Your task to perform on an android device: read, delete, or share a saved page in the chrome app Image 0: 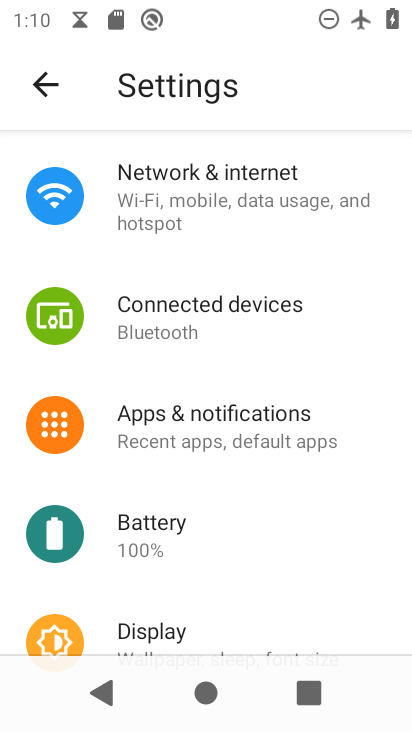
Step 0: press home button
Your task to perform on an android device: read, delete, or share a saved page in the chrome app Image 1: 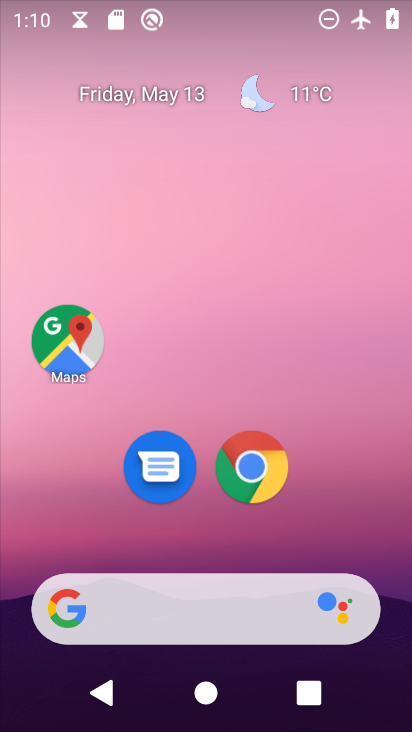
Step 1: click (253, 470)
Your task to perform on an android device: read, delete, or share a saved page in the chrome app Image 2: 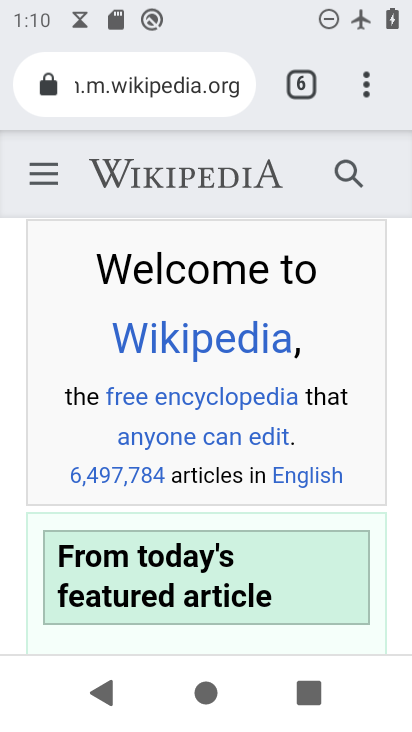
Step 2: click (361, 80)
Your task to perform on an android device: read, delete, or share a saved page in the chrome app Image 3: 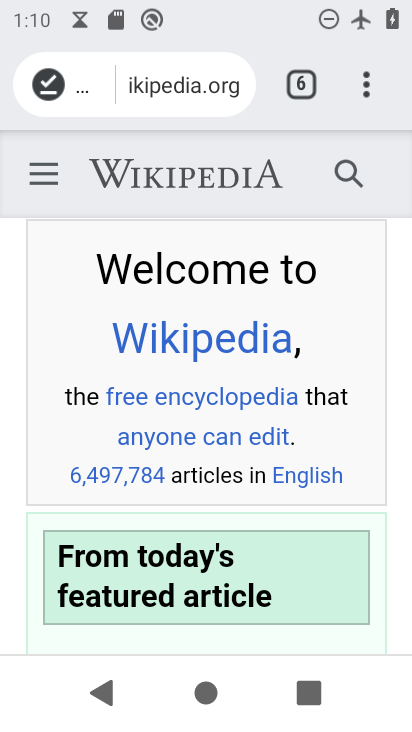
Step 3: click (348, 73)
Your task to perform on an android device: read, delete, or share a saved page in the chrome app Image 4: 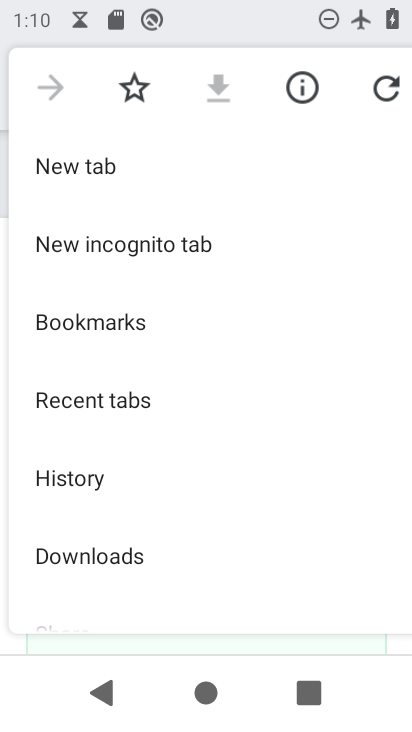
Step 4: click (119, 552)
Your task to perform on an android device: read, delete, or share a saved page in the chrome app Image 5: 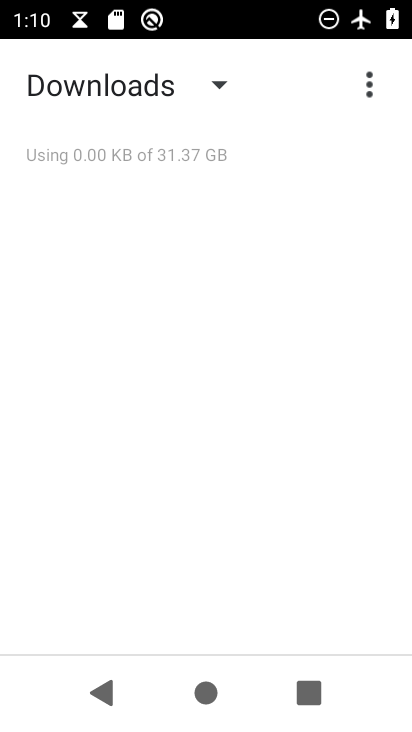
Step 5: click (107, 84)
Your task to perform on an android device: read, delete, or share a saved page in the chrome app Image 6: 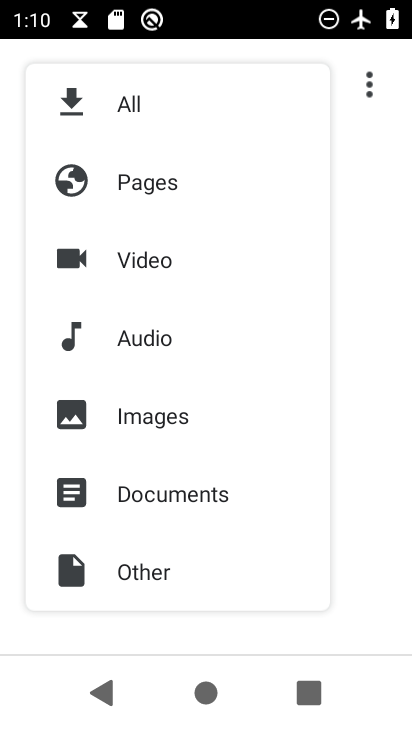
Step 6: click (141, 201)
Your task to perform on an android device: read, delete, or share a saved page in the chrome app Image 7: 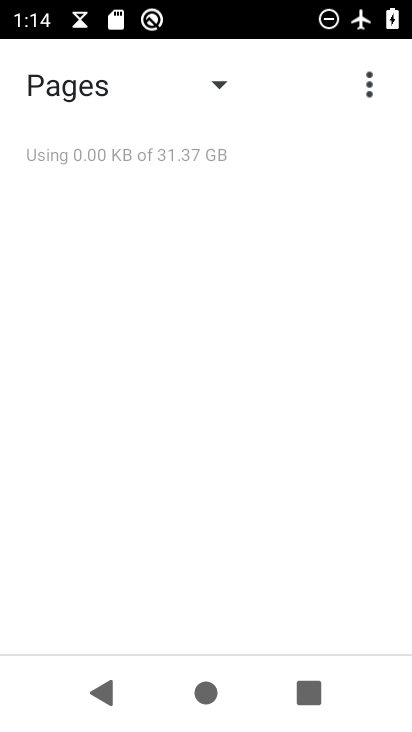
Step 7: task complete